Your task to perform on an android device: see creations saved in the google photos Image 0: 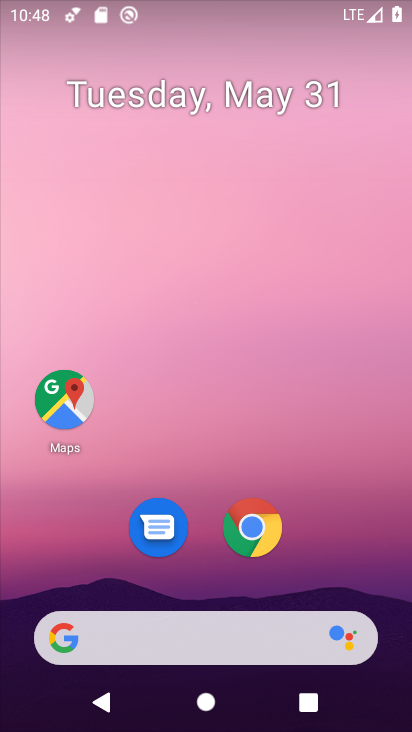
Step 0: drag from (352, 589) to (310, 28)
Your task to perform on an android device: see creations saved in the google photos Image 1: 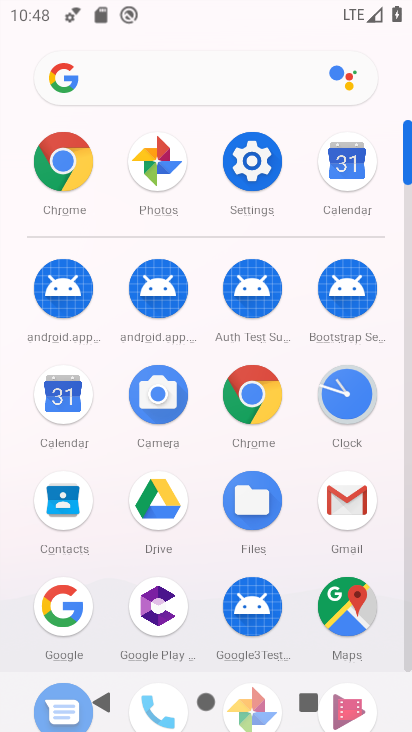
Step 1: click (155, 168)
Your task to perform on an android device: see creations saved in the google photos Image 2: 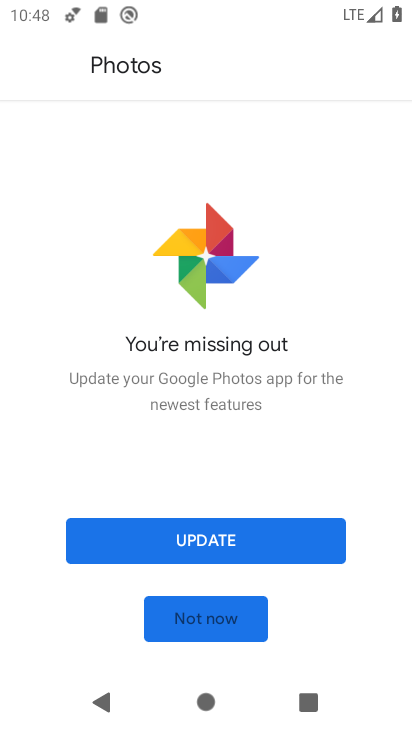
Step 2: click (201, 622)
Your task to perform on an android device: see creations saved in the google photos Image 3: 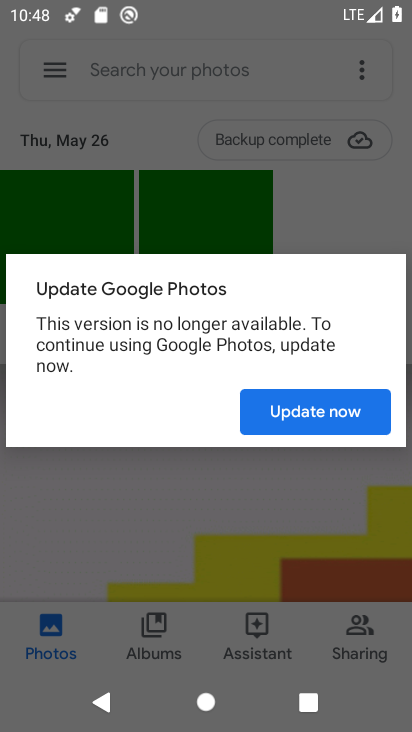
Step 3: click (278, 417)
Your task to perform on an android device: see creations saved in the google photos Image 4: 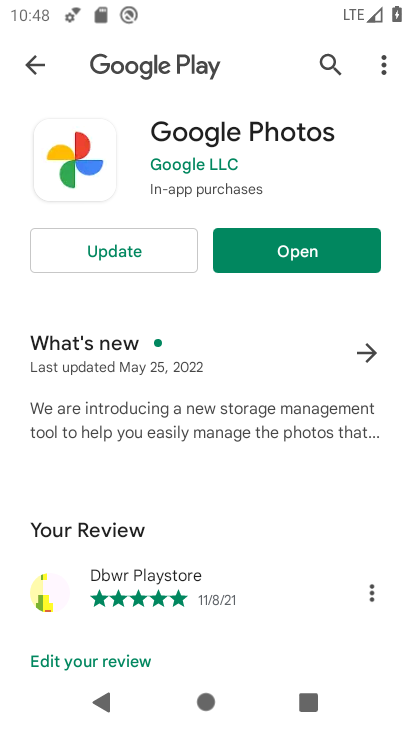
Step 4: click (269, 246)
Your task to perform on an android device: see creations saved in the google photos Image 5: 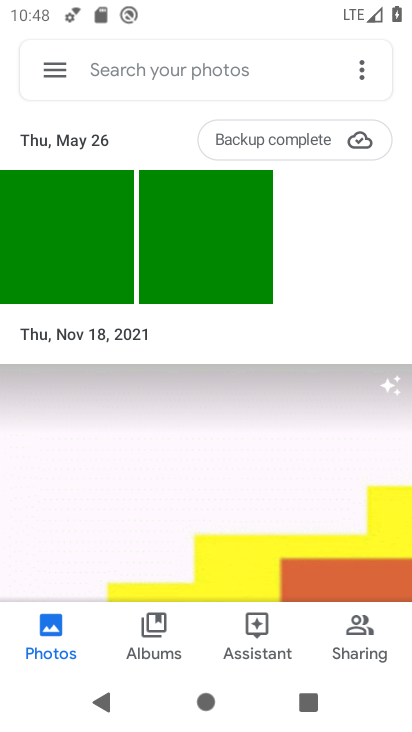
Step 5: click (124, 74)
Your task to perform on an android device: see creations saved in the google photos Image 6: 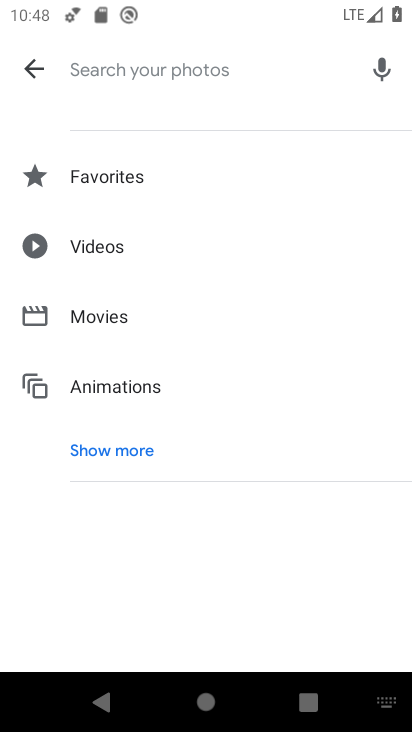
Step 6: click (104, 446)
Your task to perform on an android device: see creations saved in the google photos Image 7: 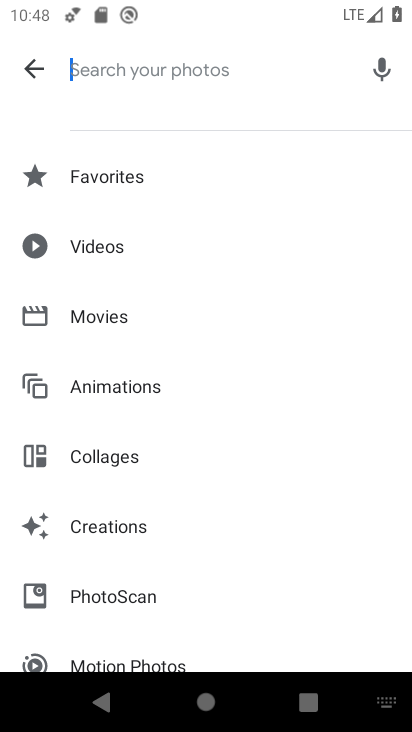
Step 7: click (103, 529)
Your task to perform on an android device: see creations saved in the google photos Image 8: 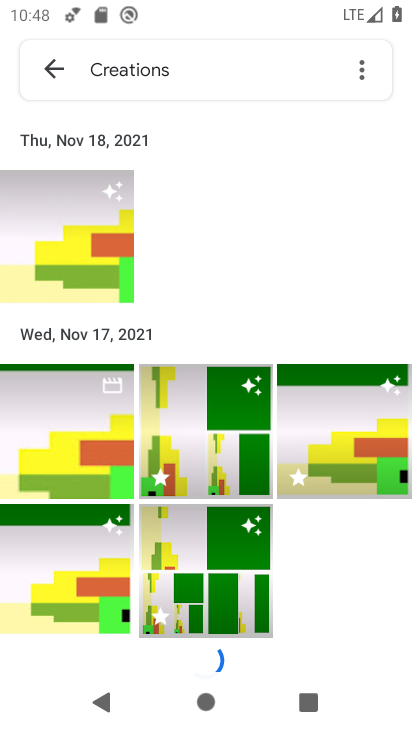
Step 8: task complete